Your task to perform on an android device: check battery use Image 0: 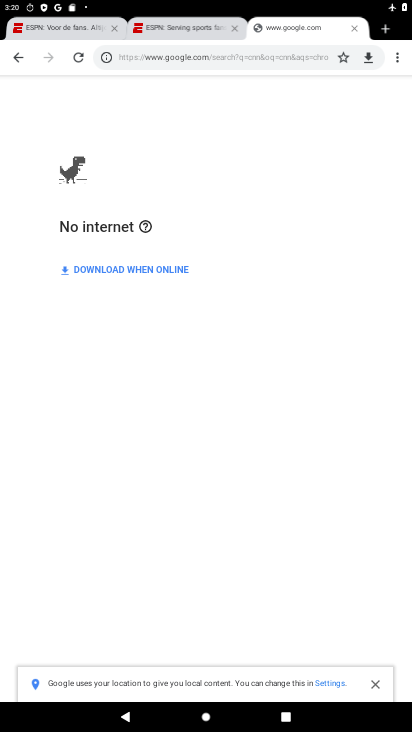
Step 0: press home button
Your task to perform on an android device: check battery use Image 1: 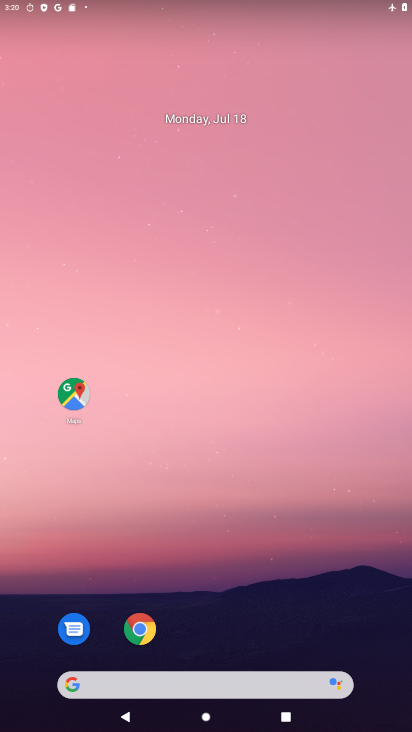
Step 1: drag from (215, 649) to (155, 8)
Your task to perform on an android device: check battery use Image 2: 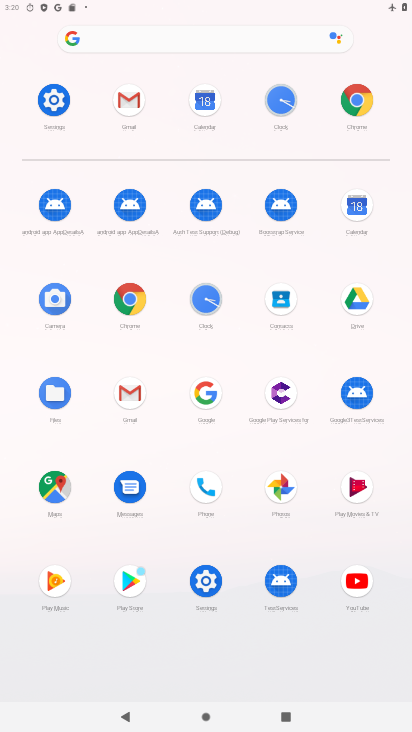
Step 2: click (46, 94)
Your task to perform on an android device: check battery use Image 3: 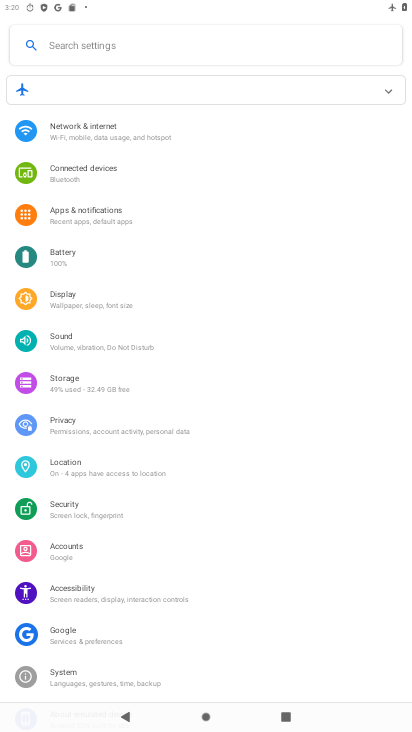
Step 3: click (58, 261)
Your task to perform on an android device: check battery use Image 4: 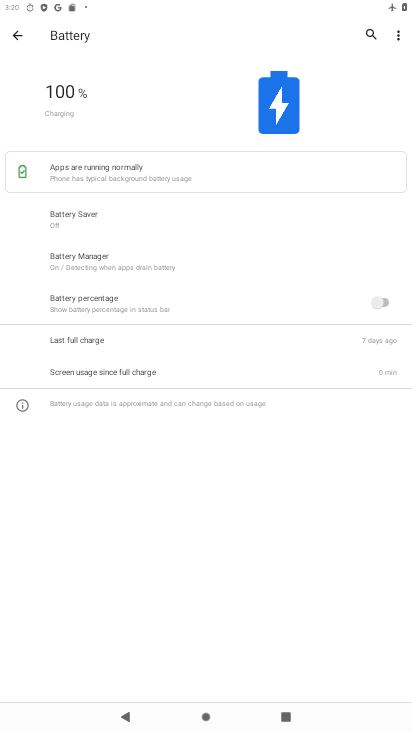
Step 4: click (406, 32)
Your task to perform on an android device: check battery use Image 5: 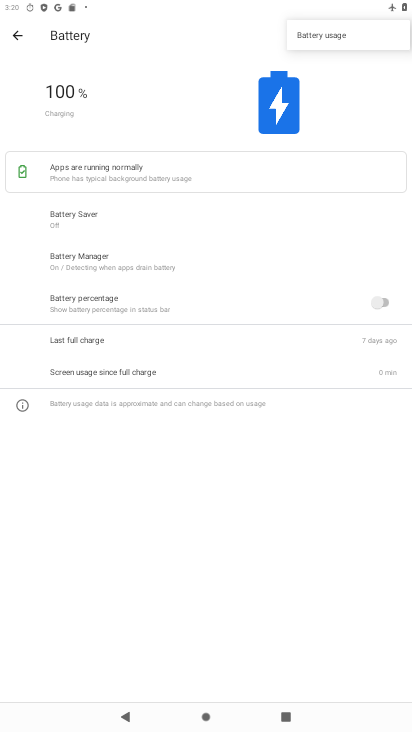
Step 5: click (344, 33)
Your task to perform on an android device: check battery use Image 6: 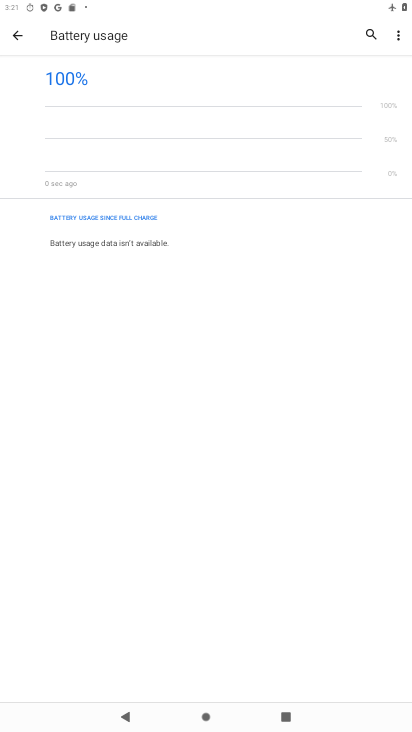
Step 6: task complete